Your task to perform on an android device: turn on improve location accuracy Image 0: 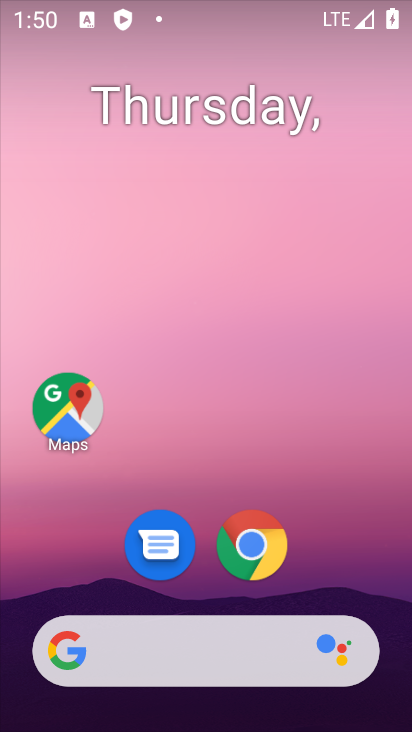
Step 0: drag from (306, 641) to (359, 4)
Your task to perform on an android device: turn on improve location accuracy Image 1: 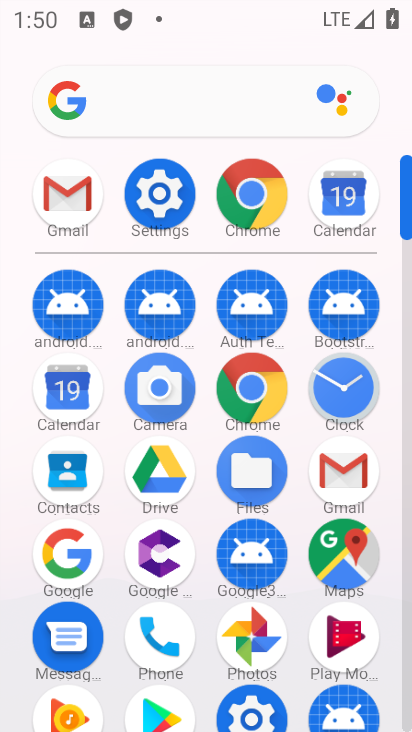
Step 1: click (162, 203)
Your task to perform on an android device: turn on improve location accuracy Image 2: 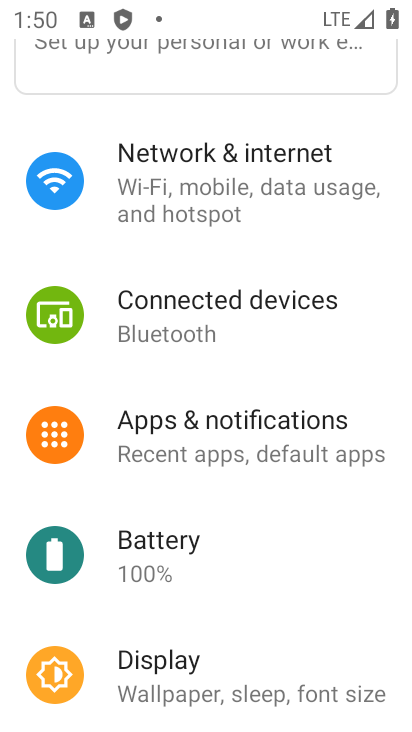
Step 2: drag from (233, 557) to (287, 57)
Your task to perform on an android device: turn on improve location accuracy Image 3: 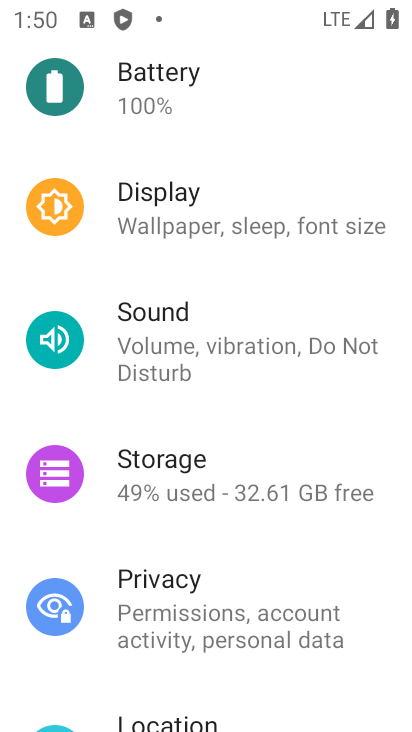
Step 3: drag from (184, 587) to (222, 233)
Your task to perform on an android device: turn on improve location accuracy Image 4: 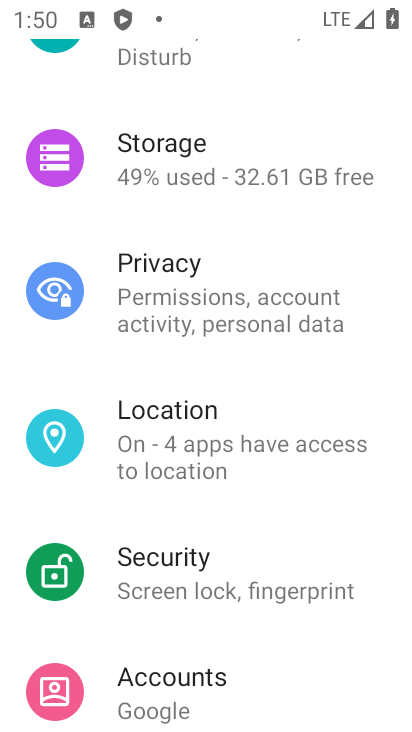
Step 4: click (224, 422)
Your task to perform on an android device: turn on improve location accuracy Image 5: 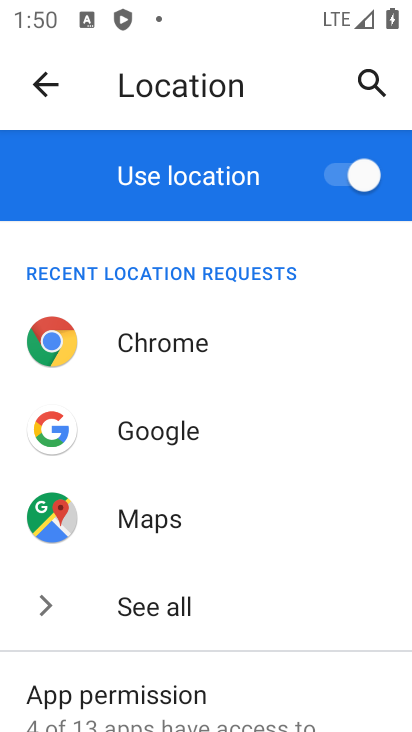
Step 5: drag from (252, 639) to (289, 148)
Your task to perform on an android device: turn on improve location accuracy Image 6: 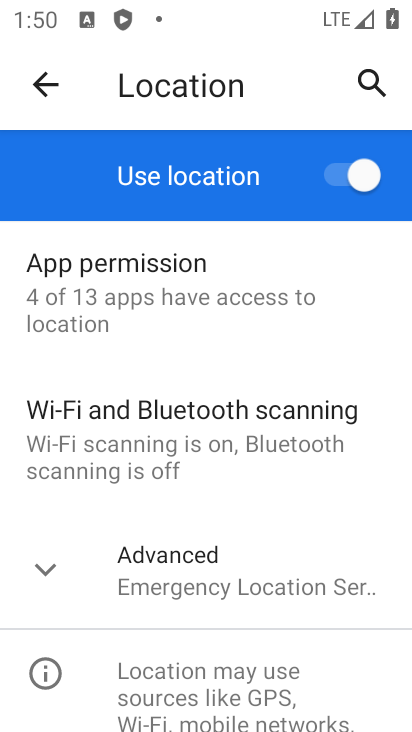
Step 6: click (258, 574)
Your task to perform on an android device: turn on improve location accuracy Image 7: 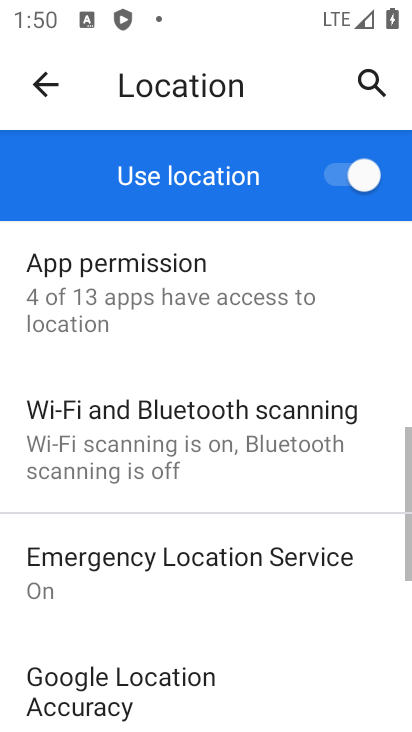
Step 7: drag from (234, 657) to (243, 287)
Your task to perform on an android device: turn on improve location accuracy Image 8: 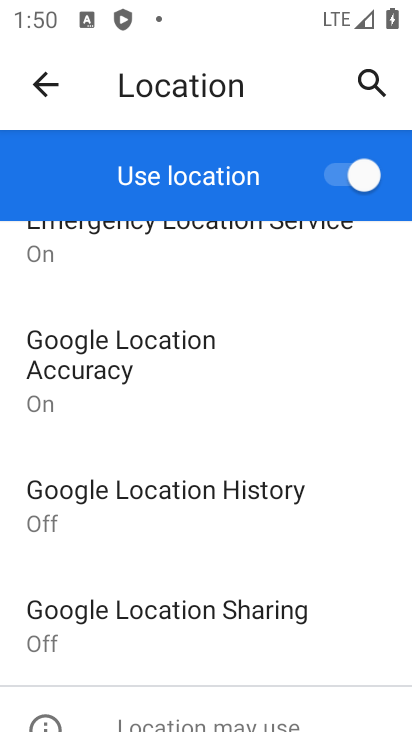
Step 8: click (226, 363)
Your task to perform on an android device: turn on improve location accuracy Image 9: 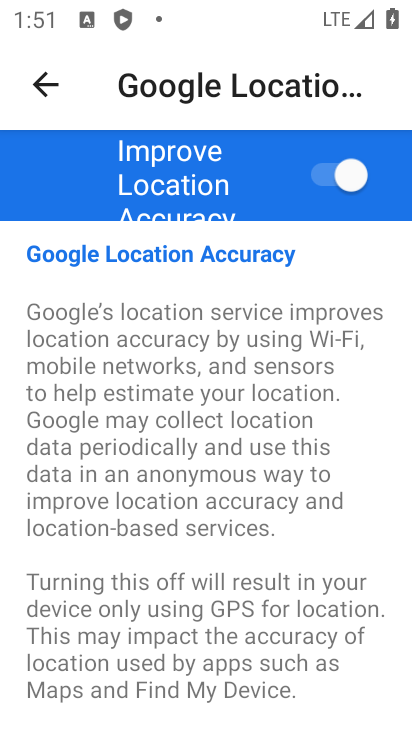
Step 9: task complete